Your task to perform on an android device: Show me popular videos on Youtube Image 0: 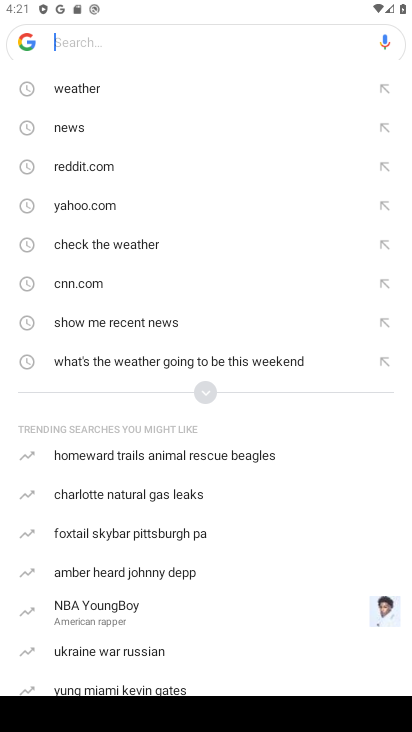
Step 0: press back button
Your task to perform on an android device: Show me popular videos on Youtube Image 1: 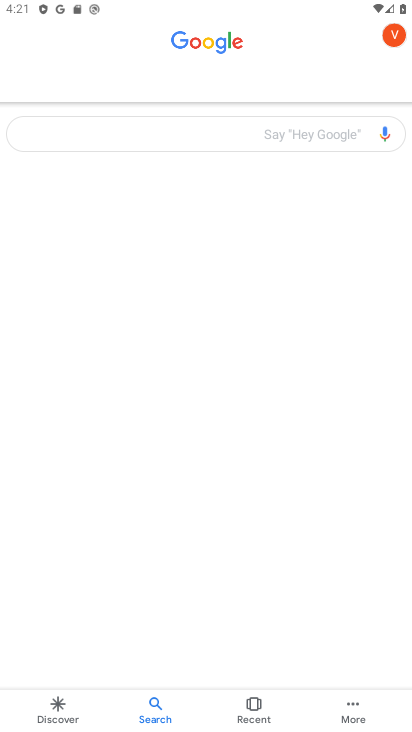
Step 1: press back button
Your task to perform on an android device: Show me popular videos on Youtube Image 2: 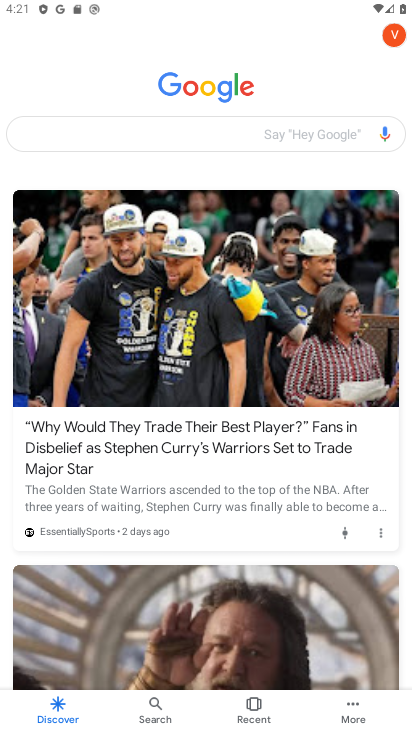
Step 2: press back button
Your task to perform on an android device: Show me popular videos on Youtube Image 3: 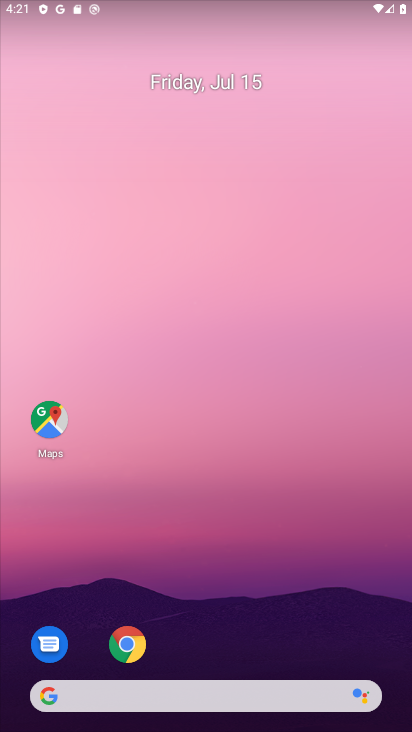
Step 3: drag from (202, 620) to (214, 219)
Your task to perform on an android device: Show me popular videos on Youtube Image 4: 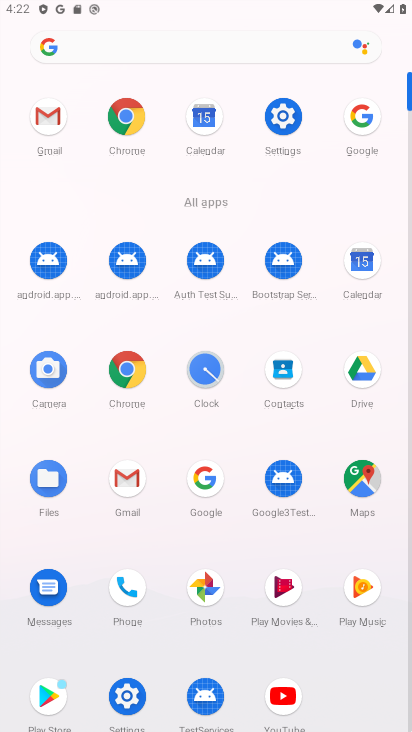
Step 4: click (281, 684)
Your task to perform on an android device: Show me popular videos on Youtube Image 5: 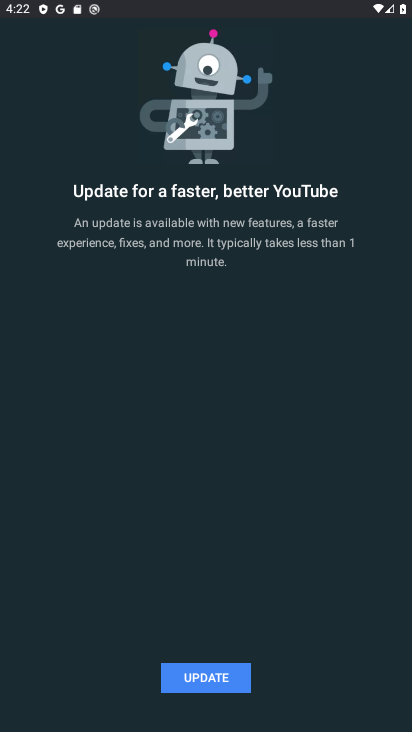
Step 5: click (206, 672)
Your task to perform on an android device: Show me popular videos on Youtube Image 6: 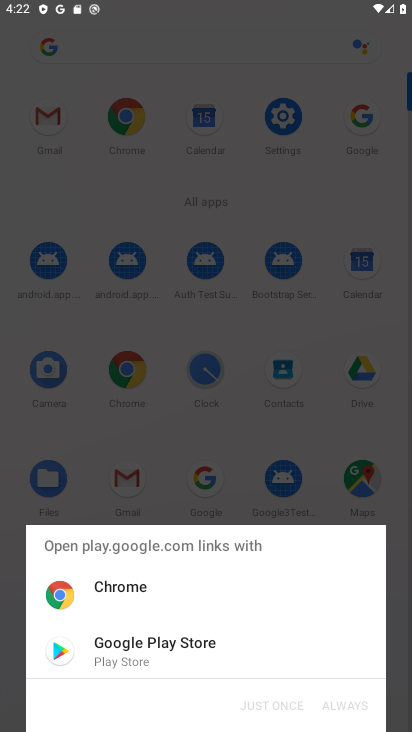
Step 6: click (157, 656)
Your task to perform on an android device: Show me popular videos on Youtube Image 7: 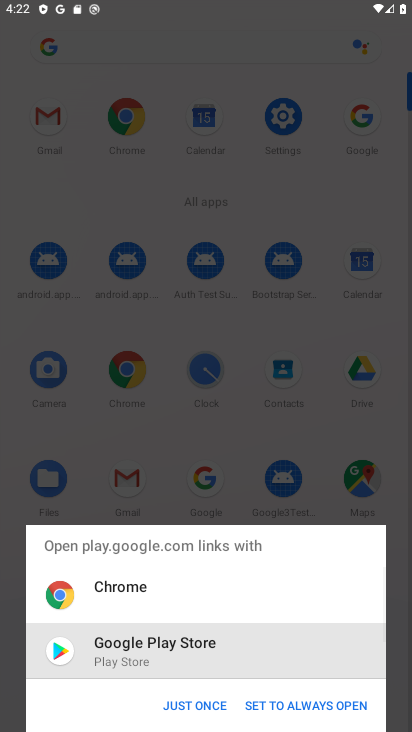
Step 7: click (226, 708)
Your task to perform on an android device: Show me popular videos on Youtube Image 8: 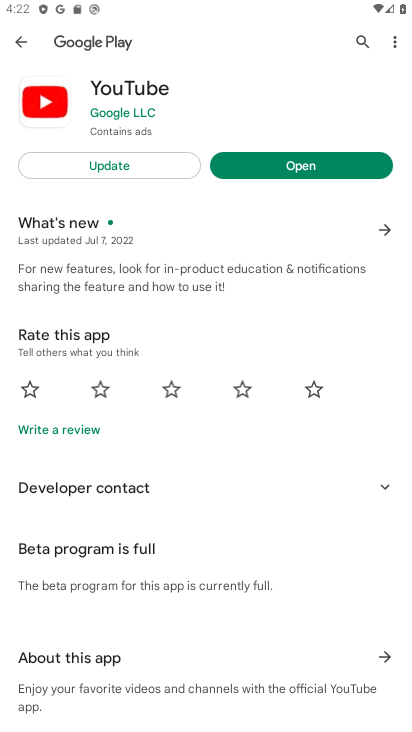
Step 8: click (132, 161)
Your task to perform on an android device: Show me popular videos on Youtube Image 9: 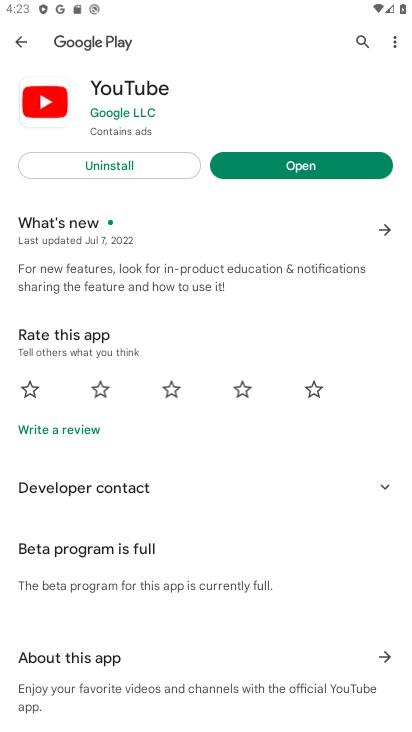
Step 9: click (310, 152)
Your task to perform on an android device: Show me popular videos on Youtube Image 10: 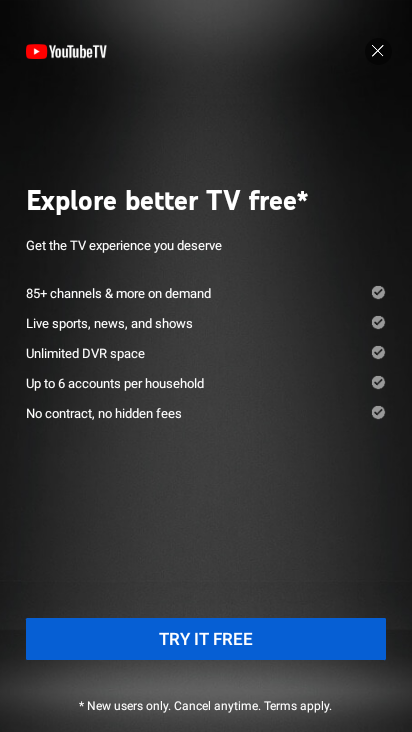
Step 10: click (374, 57)
Your task to perform on an android device: Show me popular videos on Youtube Image 11: 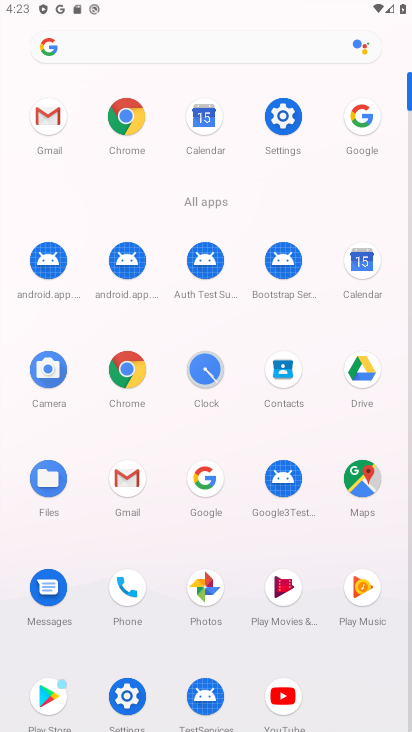
Step 11: click (267, 695)
Your task to perform on an android device: Show me popular videos on Youtube Image 12: 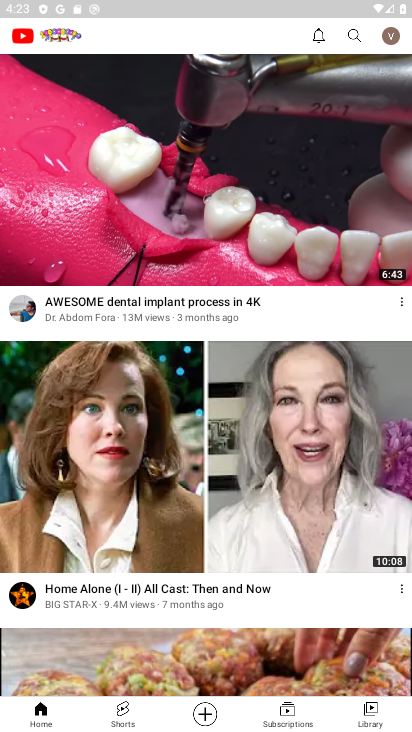
Step 12: drag from (267, 116) to (247, 471)
Your task to perform on an android device: Show me popular videos on Youtube Image 13: 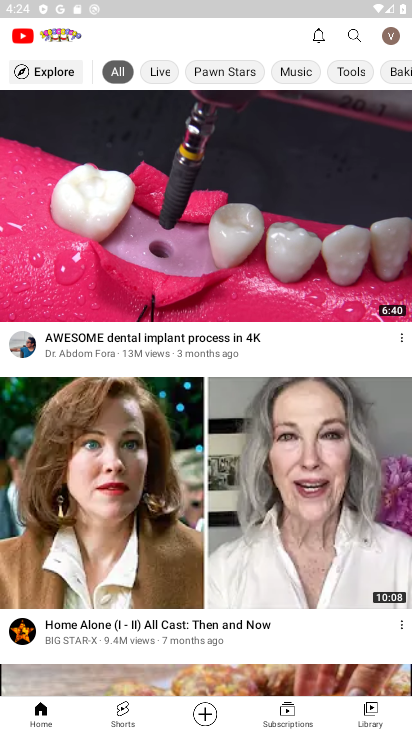
Step 13: click (55, 64)
Your task to perform on an android device: Show me popular videos on Youtube Image 14: 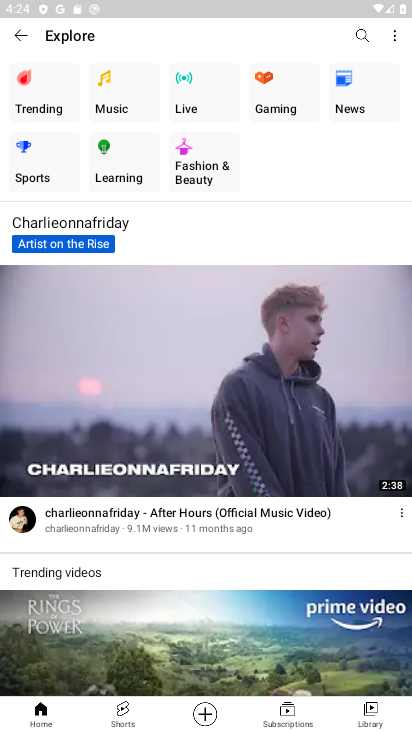
Step 14: click (38, 102)
Your task to perform on an android device: Show me popular videos on Youtube Image 15: 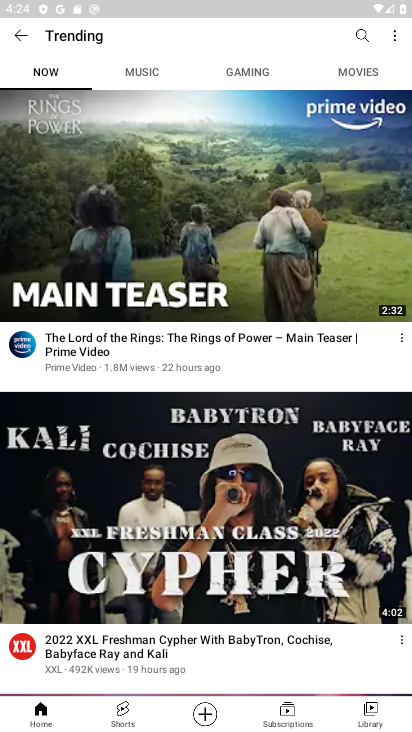
Step 15: task complete